Your task to perform on an android device: add a label to a message in the gmail app Image 0: 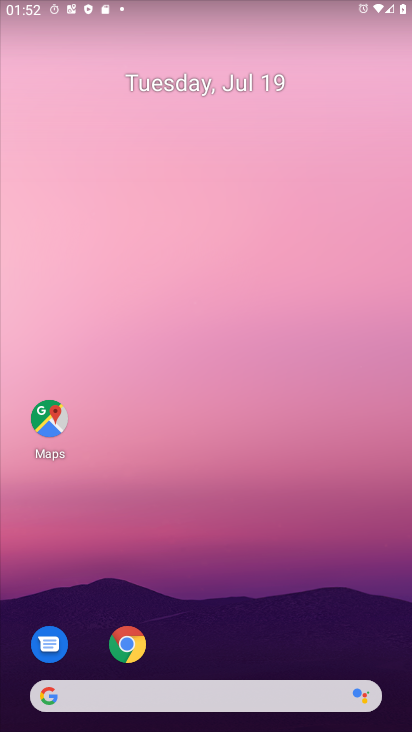
Step 0: drag from (223, 710) to (239, 270)
Your task to perform on an android device: add a label to a message in the gmail app Image 1: 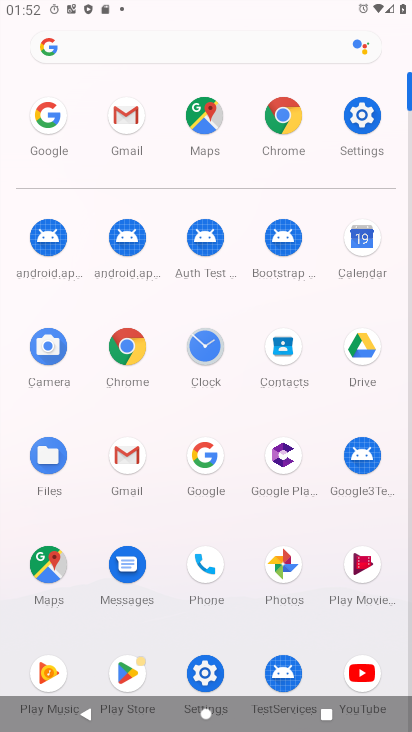
Step 1: click (114, 453)
Your task to perform on an android device: add a label to a message in the gmail app Image 2: 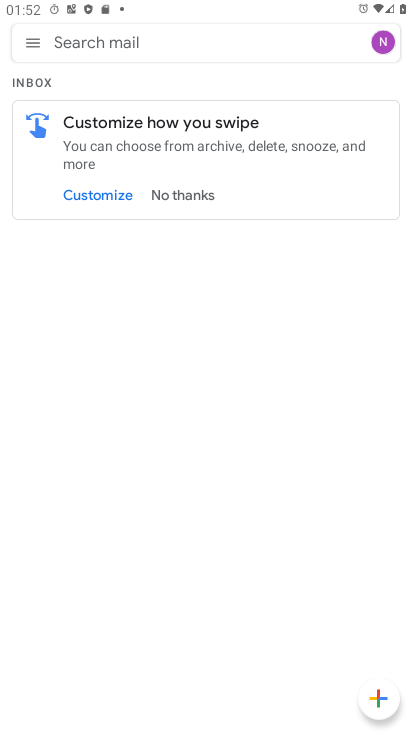
Step 2: click (30, 45)
Your task to perform on an android device: add a label to a message in the gmail app Image 3: 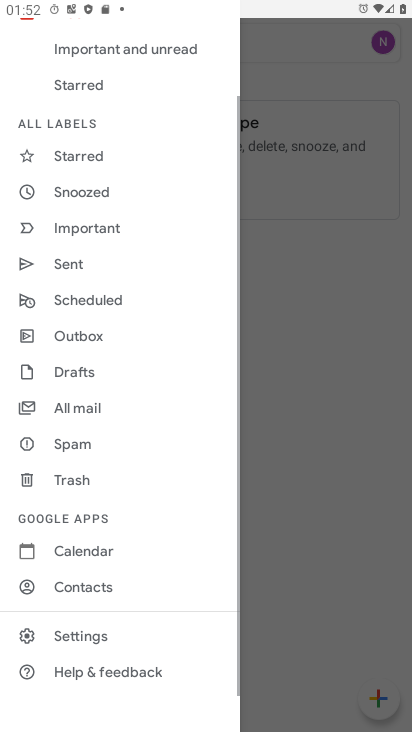
Step 3: click (81, 94)
Your task to perform on an android device: add a label to a message in the gmail app Image 4: 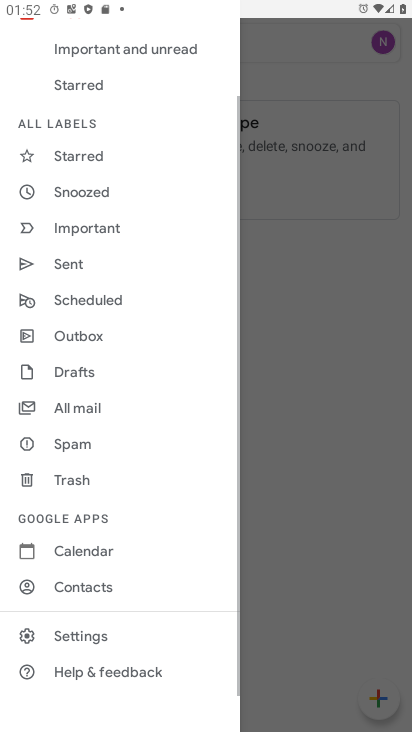
Step 4: click (83, 433)
Your task to perform on an android device: add a label to a message in the gmail app Image 5: 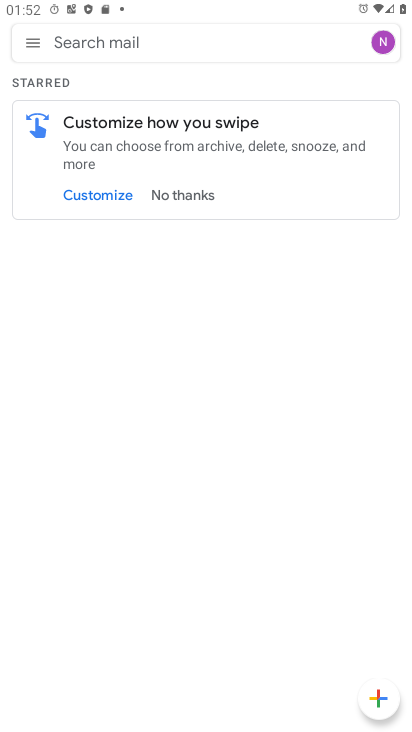
Step 5: click (34, 47)
Your task to perform on an android device: add a label to a message in the gmail app Image 6: 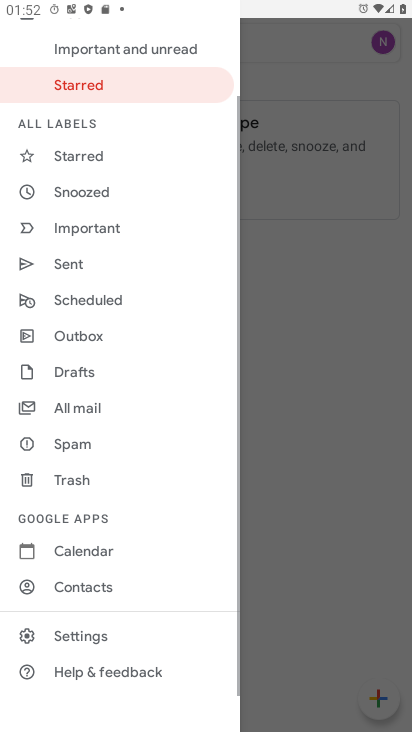
Step 6: drag from (109, 109) to (150, 474)
Your task to perform on an android device: add a label to a message in the gmail app Image 7: 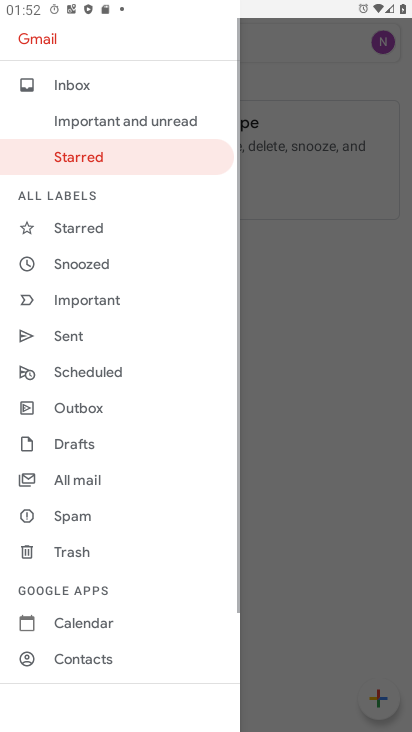
Step 7: click (66, 84)
Your task to perform on an android device: add a label to a message in the gmail app Image 8: 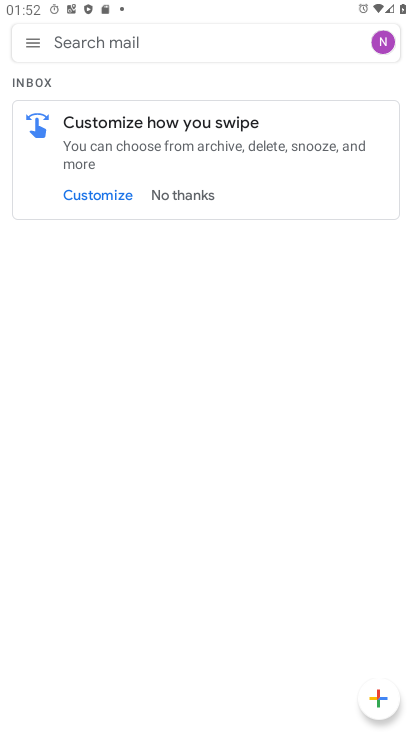
Step 8: task complete